Your task to perform on an android device: Go to sound settings Image 0: 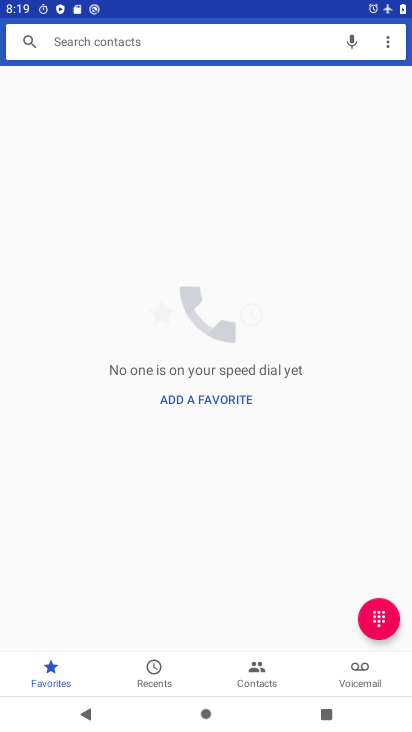
Step 0: press back button
Your task to perform on an android device: Go to sound settings Image 1: 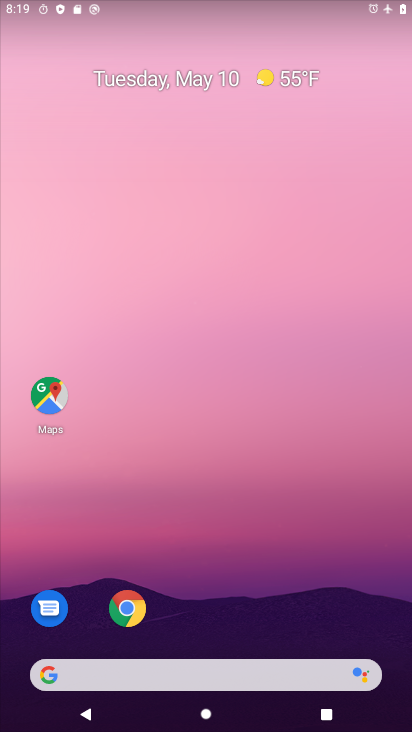
Step 1: drag from (220, 573) to (218, 127)
Your task to perform on an android device: Go to sound settings Image 2: 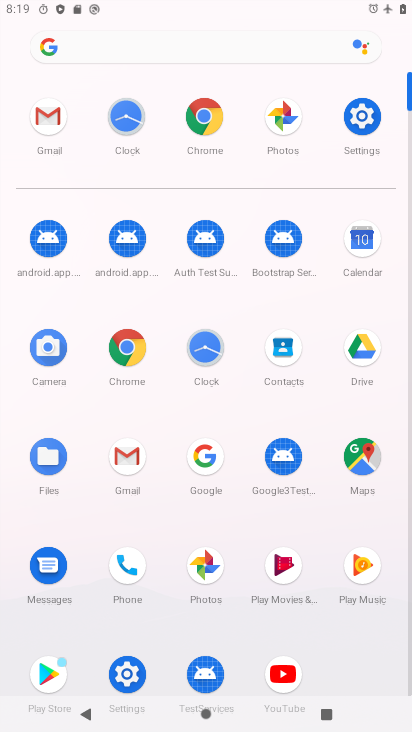
Step 2: click (362, 114)
Your task to perform on an android device: Go to sound settings Image 3: 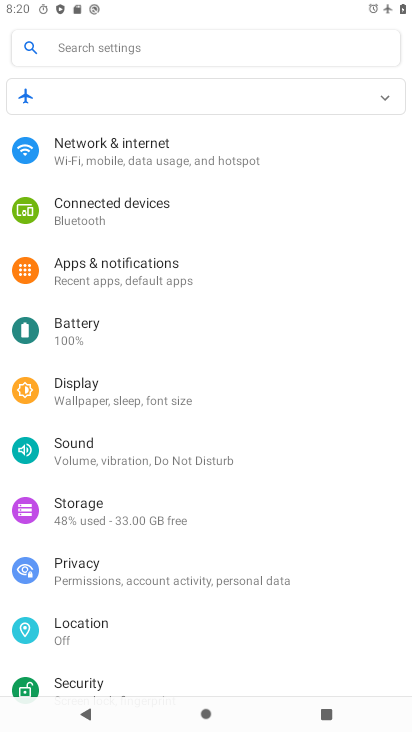
Step 3: click (124, 459)
Your task to perform on an android device: Go to sound settings Image 4: 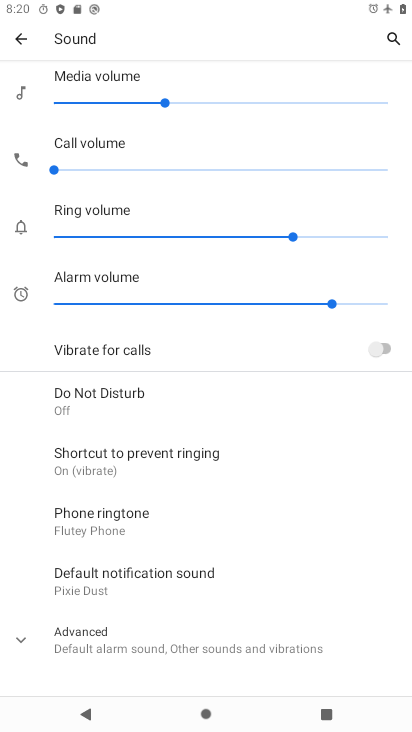
Step 4: task complete